Your task to perform on an android device: Add "alienware aurora" to the cart on target Image 0: 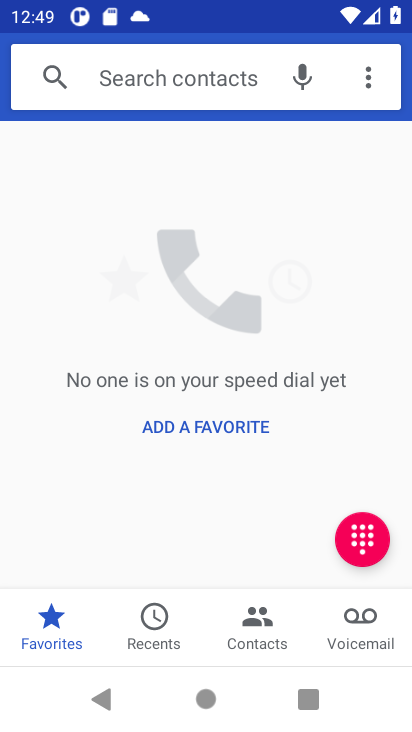
Step 0: press home button
Your task to perform on an android device: Add "alienware aurora" to the cart on target Image 1: 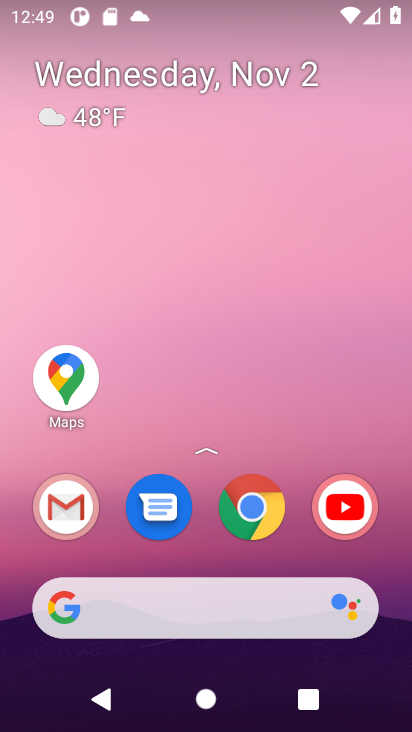
Step 1: click (120, 610)
Your task to perform on an android device: Add "alienware aurora" to the cart on target Image 2: 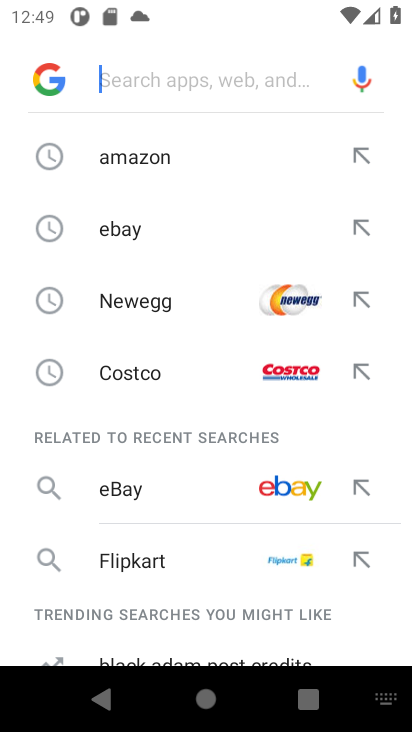
Step 2: type "target"
Your task to perform on an android device: Add "alienware aurora" to the cart on target Image 3: 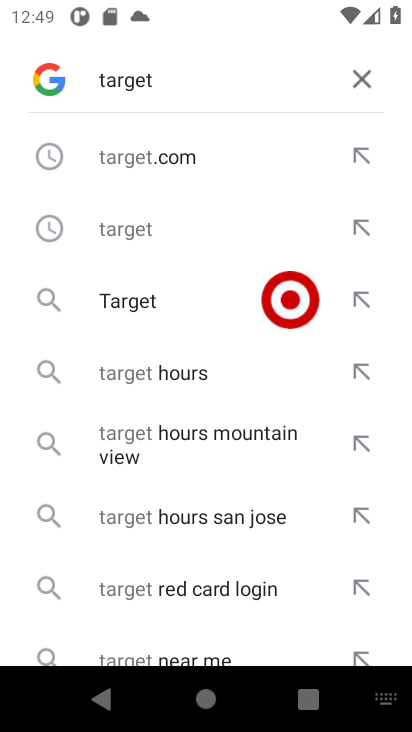
Step 3: type ""
Your task to perform on an android device: Add "alienware aurora" to the cart on target Image 4: 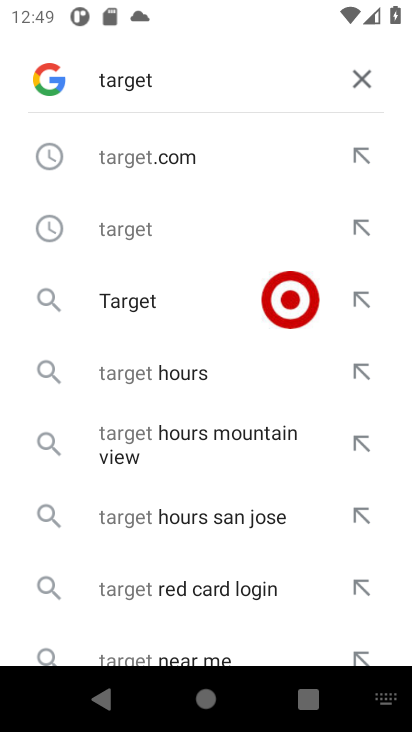
Step 4: click (157, 221)
Your task to perform on an android device: Add "alienware aurora" to the cart on target Image 5: 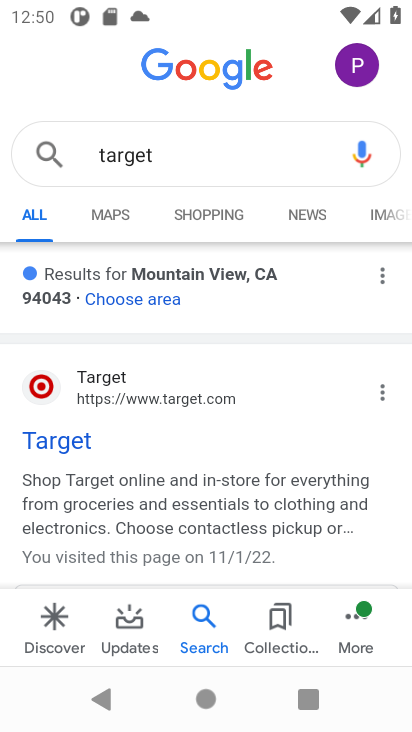
Step 5: click (130, 384)
Your task to perform on an android device: Add "alienware aurora" to the cart on target Image 6: 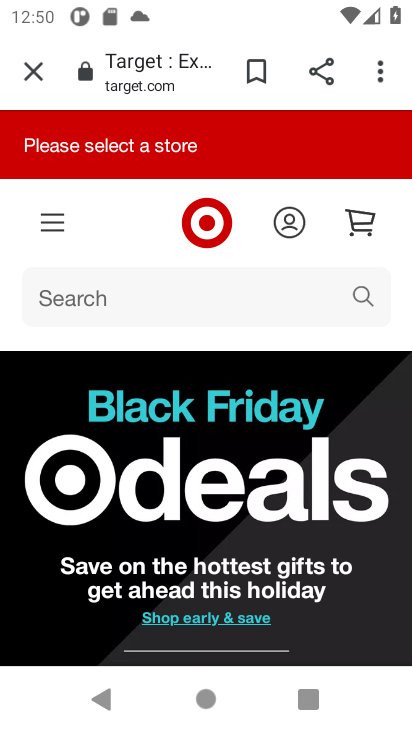
Step 6: click (135, 309)
Your task to perform on an android device: Add "alienware aurora" to the cart on target Image 7: 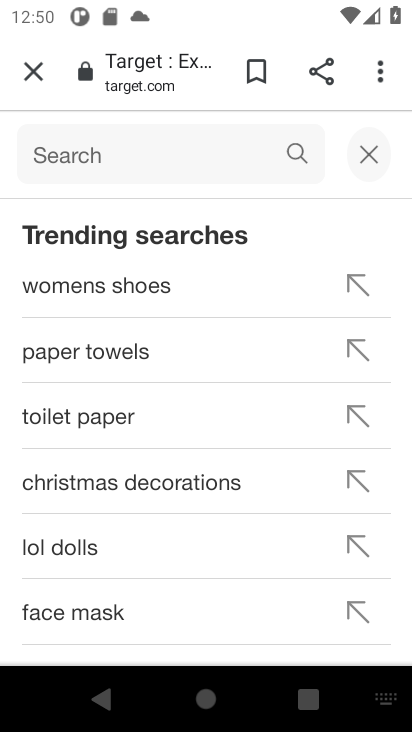
Step 7: type "alienware aurora"
Your task to perform on an android device: Add "alienware aurora" to the cart on target Image 8: 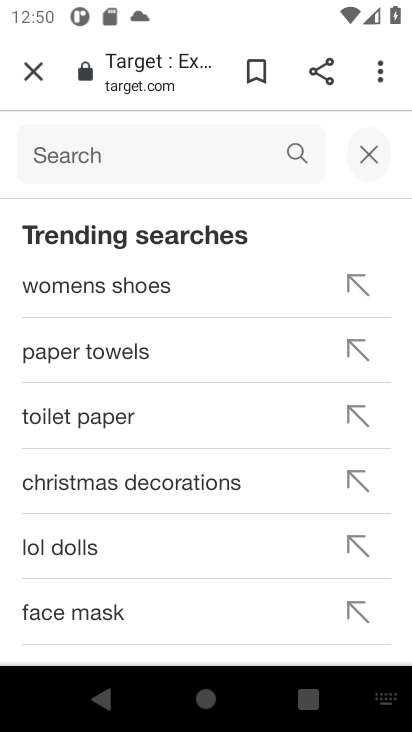
Step 8: type ""
Your task to perform on an android device: Add "alienware aurora" to the cart on target Image 9: 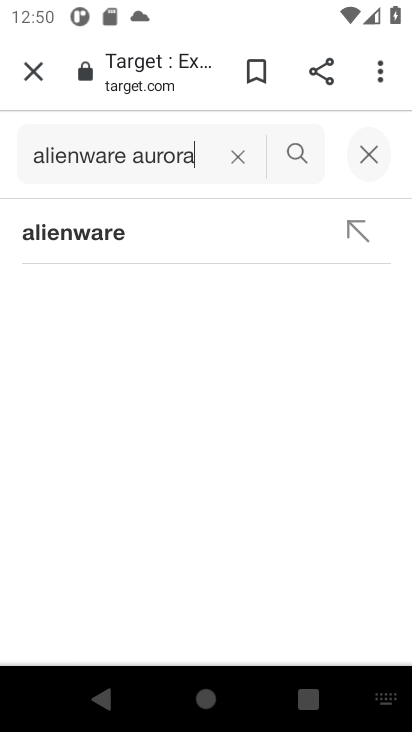
Step 9: click (301, 156)
Your task to perform on an android device: Add "alienware aurora" to the cart on target Image 10: 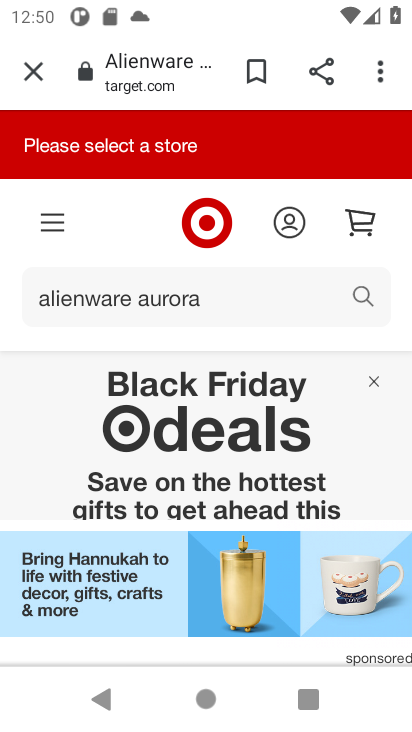
Step 10: drag from (284, 543) to (283, 233)
Your task to perform on an android device: Add "alienware aurora" to the cart on target Image 11: 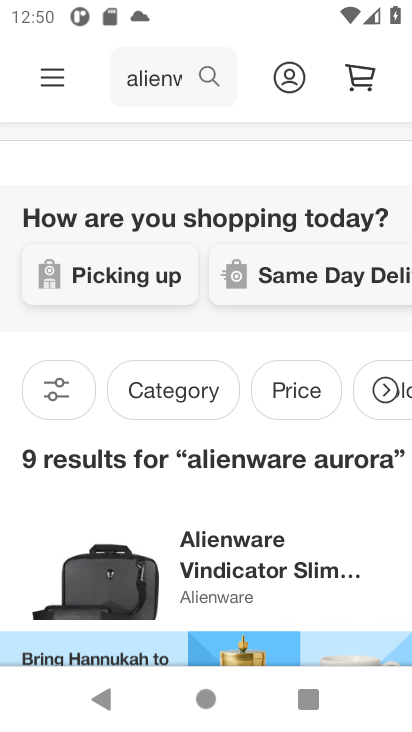
Step 11: drag from (271, 471) to (264, 137)
Your task to perform on an android device: Add "alienware aurora" to the cart on target Image 12: 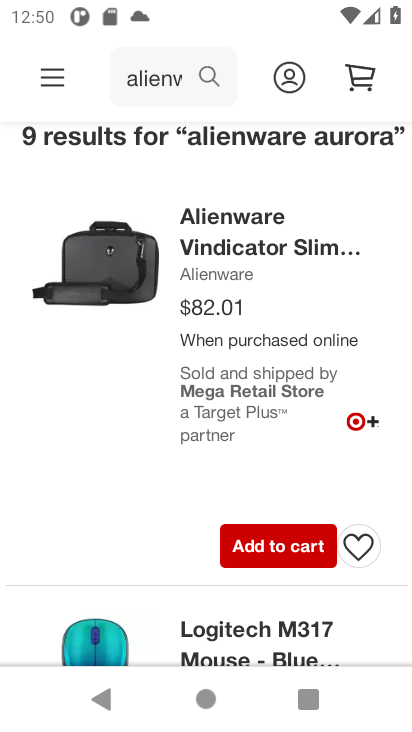
Step 12: click (265, 538)
Your task to perform on an android device: Add "alienware aurora" to the cart on target Image 13: 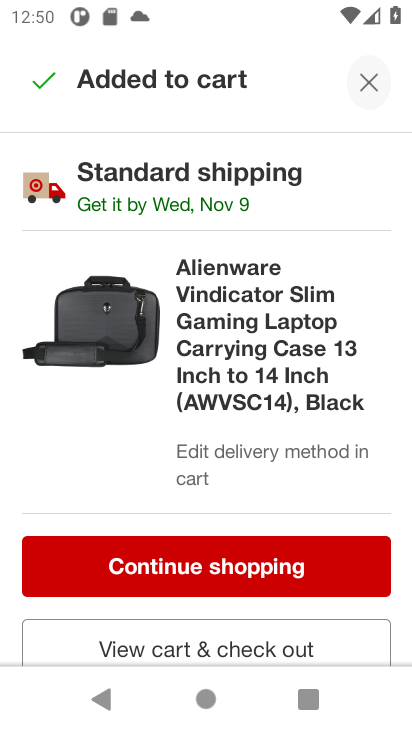
Step 13: task complete